Your task to perform on an android device: turn off improve location accuracy Image 0: 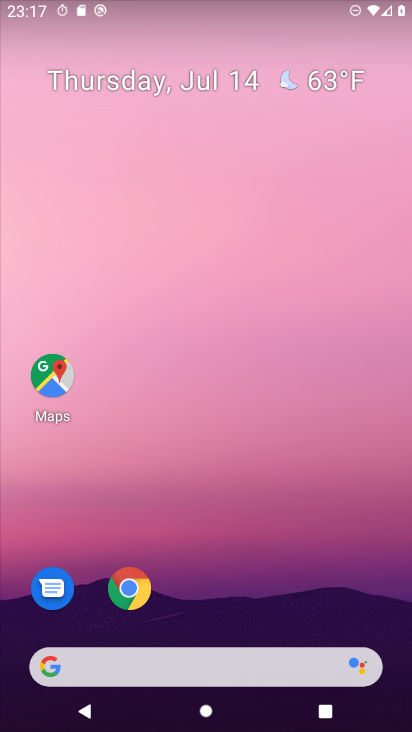
Step 0: drag from (366, 555) to (366, 260)
Your task to perform on an android device: turn off improve location accuracy Image 1: 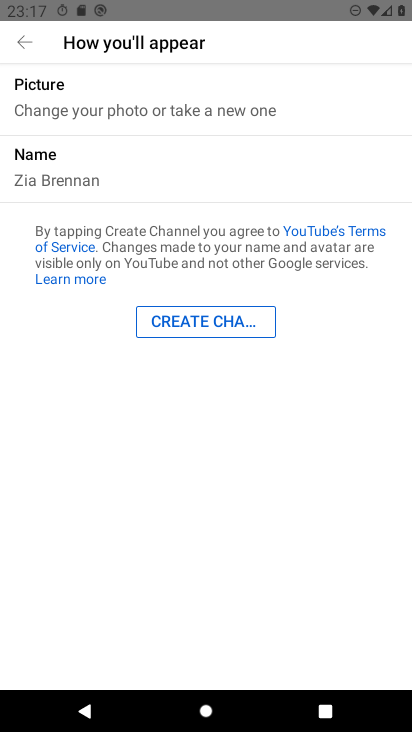
Step 1: press home button
Your task to perform on an android device: turn off improve location accuracy Image 2: 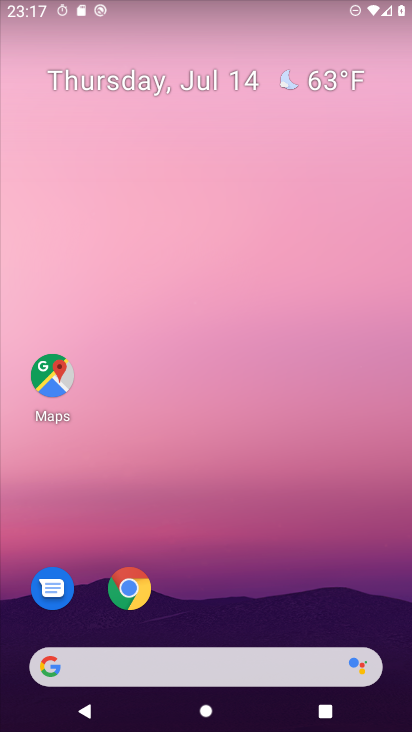
Step 2: drag from (345, 569) to (331, 34)
Your task to perform on an android device: turn off improve location accuracy Image 3: 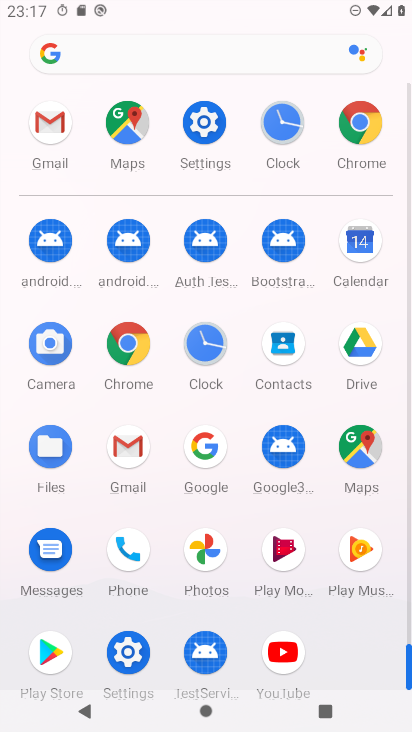
Step 3: click (209, 117)
Your task to perform on an android device: turn off improve location accuracy Image 4: 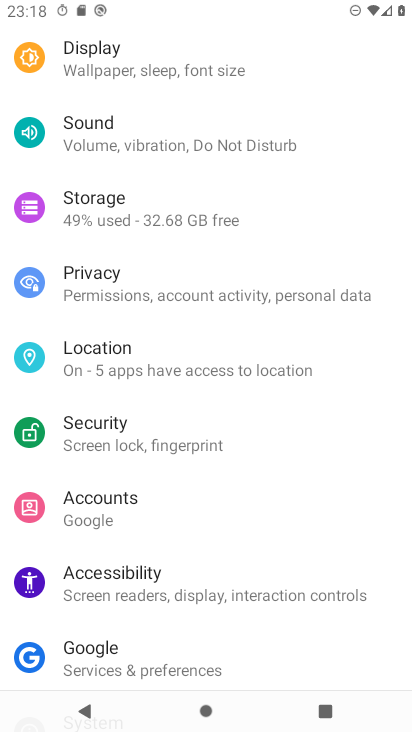
Step 4: drag from (343, 150) to (344, 241)
Your task to perform on an android device: turn off improve location accuracy Image 5: 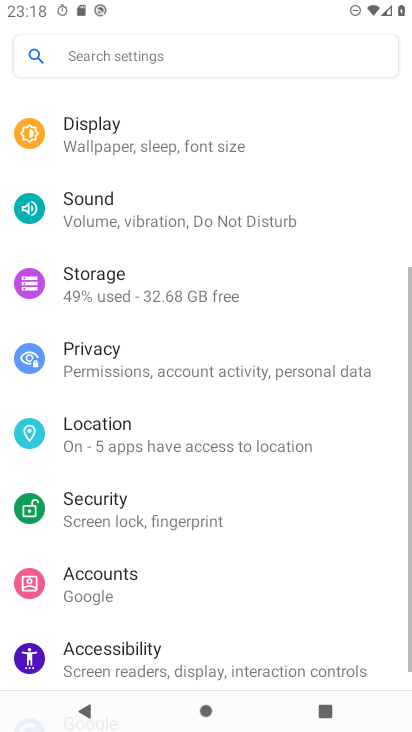
Step 5: drag from (356, 158) to (358, 262)
Your task to perform on an android device: turn off improve location accuracy Image 6: 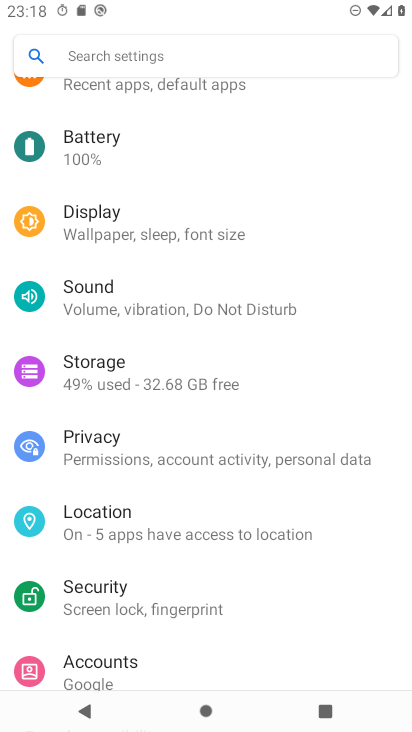
Step 6: drag from (372, 150) to (372, 254)
Your task to perform on an android device: turn off improve location accuracy Image 7: 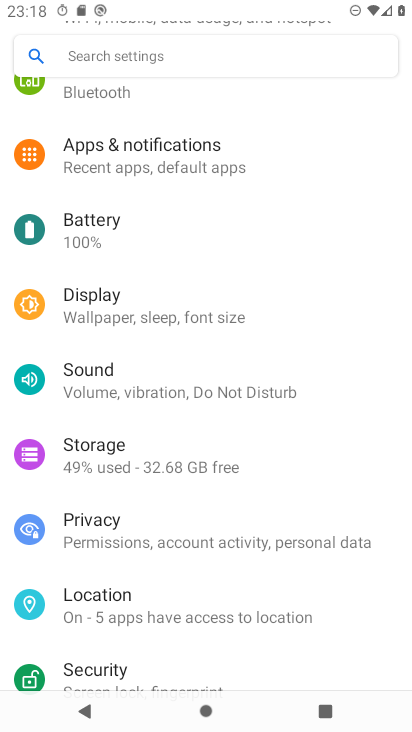
Step 7: drag from (369, 140) to (362, 249)
Your task to perform on an android device: turn off improve location accuracy Image 8: 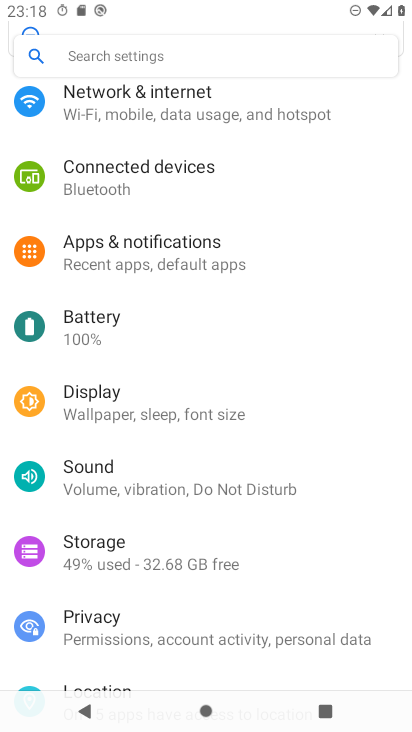
Step 8: drag from (366, 109) to (363, 306)
Your task to perform on an android device: turn off improve location accuracy Image 9: 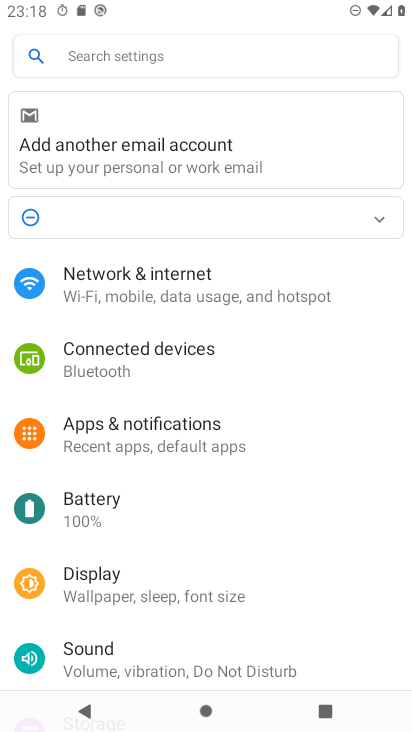
Step 9: drag from (352, 411) to (359, 345)
Your task to perform on an android device: turn off improve location accuracy Image 10: 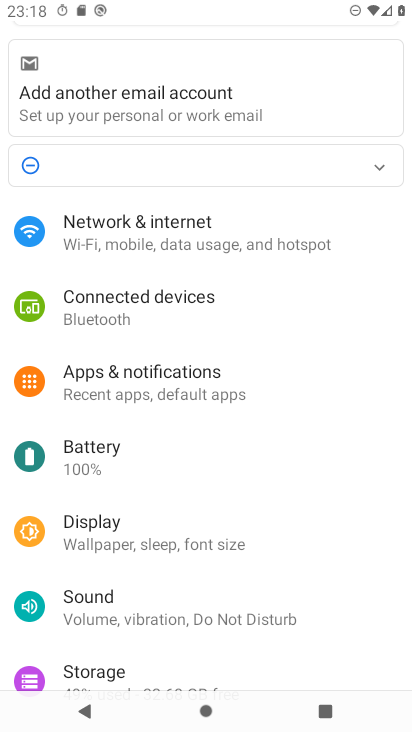
Step 10: drag from (348, 407) to (344, 315)
Your task to perform on an android device: turn off improve location accuracy Image 11: 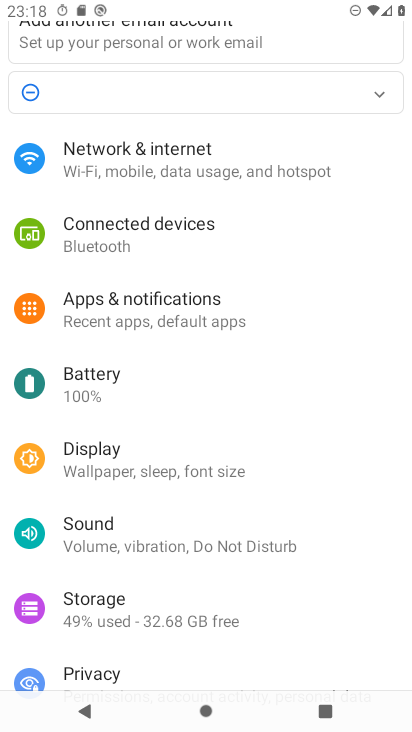
Step 11: drag from (320, 411) to (321, 325)
Your task to perform on an android device: turn off improve location accuracy Image 12: 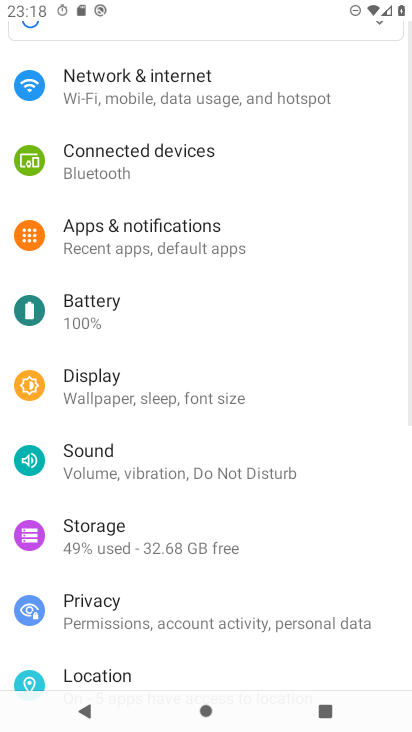
Step 12: drag from (312, 406) to (311, 342)
Your task to perform on an android device: turn off improve location accuracy Image 13: 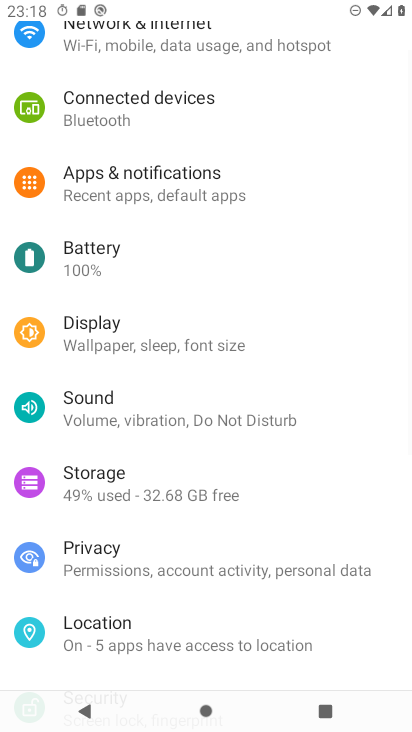
Step 13: drag from (310, 421) to (310, 361)
Your task to perform on an android device: turn off improve location accuracy Image 14: 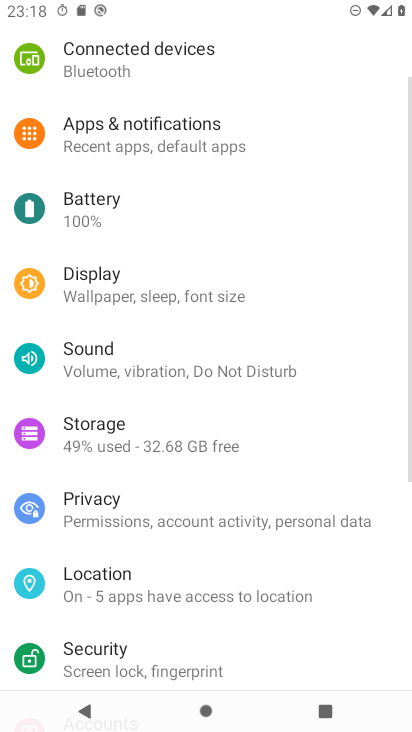
Step 14: drag from (294, 433) to (298, 369)
Your task to perform on an android device: turn off improve location accuracy Image 15: 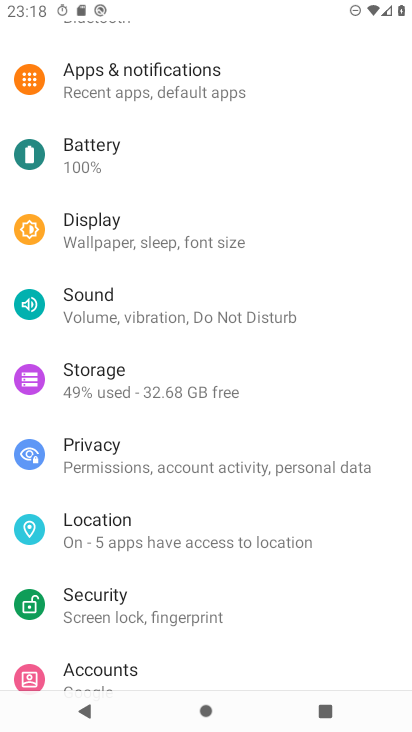
Step 15: drag from (289, 435) to (292, 357)
Your task to perform on an android device: turn off improve location accuracy Image 16: 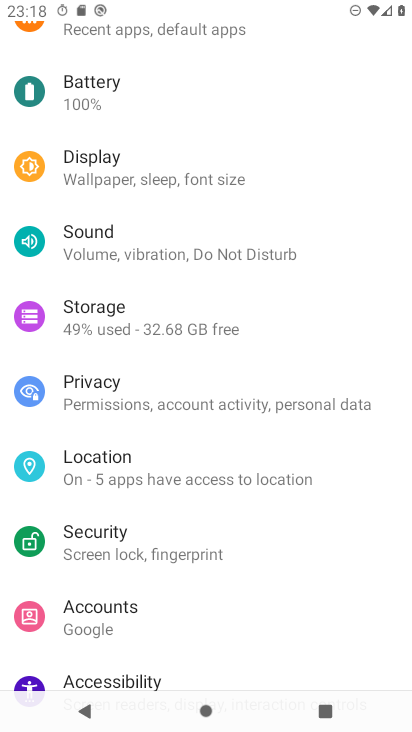
Step 16: drag from (291, 446) to (294, 327)
Your task to perform on an android device: turn off improve location accuracy Image 17: 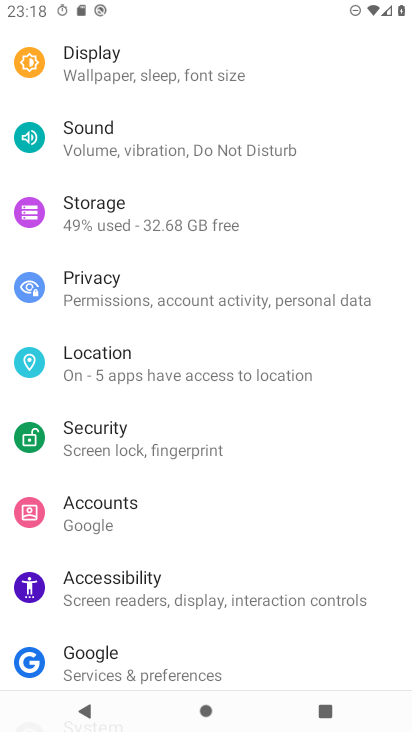
Step 17: click (280, 355)
Your task to perform on an android device: turn off improve location accuracy Image 18: 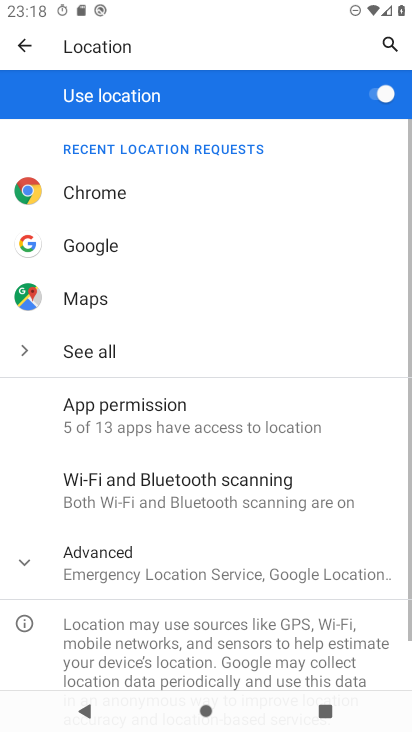
Step 18: click (287, 562)
Your task to perform on an android device: turn off improve location accuracy Image 19: 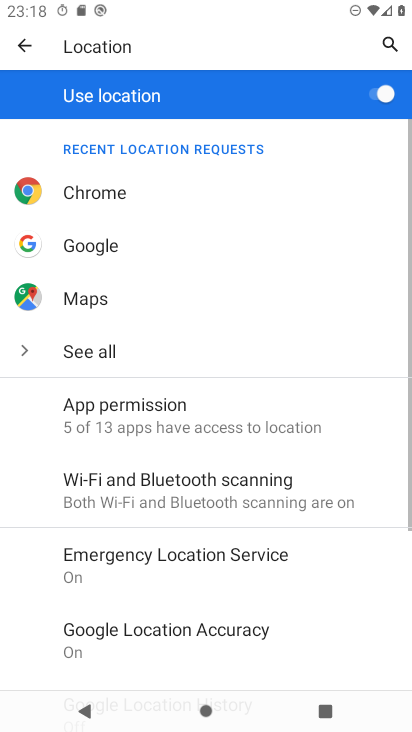
Step 19: drag from (320, 537) to (327, 385)
Your task to perform on an android device: turn off improve location accuracy Image 20: 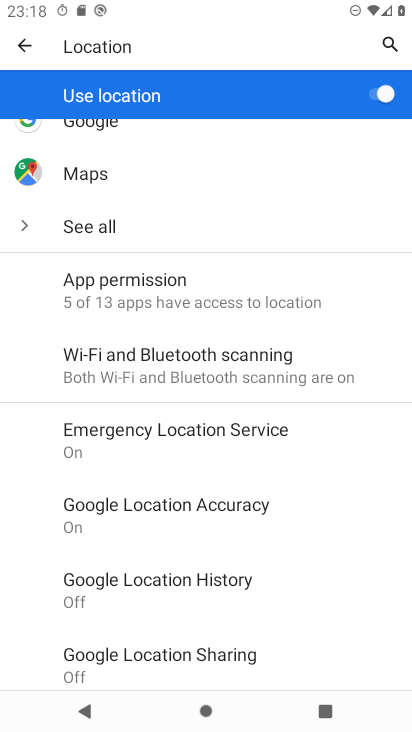
Step 20: drag from (329, 516) to (340, 386)
Your task to perform on an android device: turn off improve location accuracy Image 21: 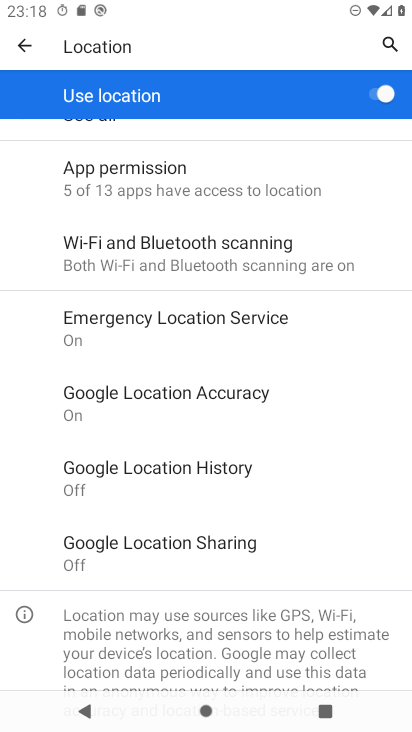
Step 21: click (246, 394)
Your task to perform on an android device: turn off improve location accuracy Image 22: 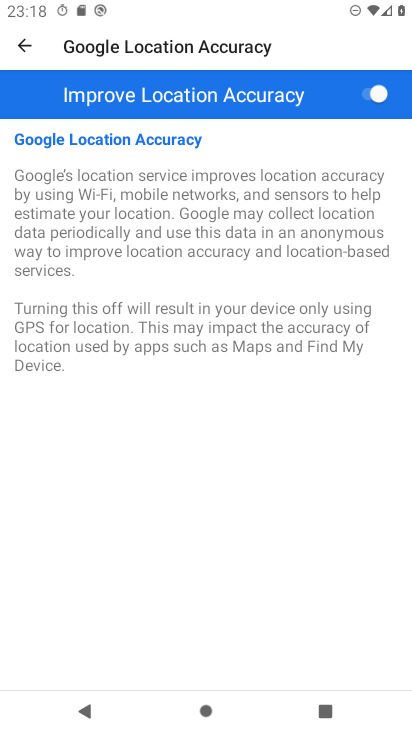
Step 22: click (365, 95)
Your task to perform on an android device: turn off improve location accuracy Image 23: 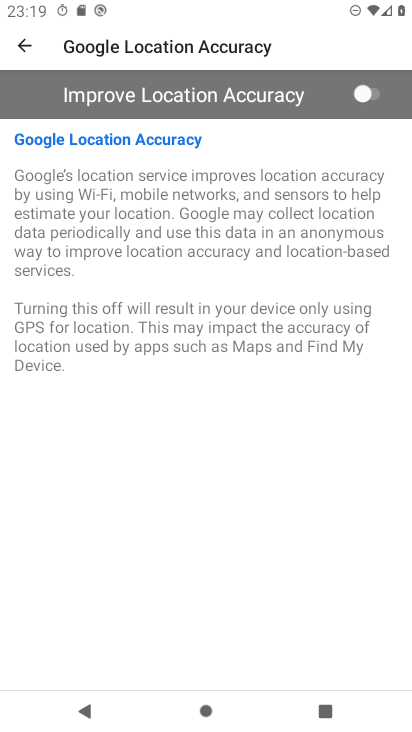
Step 23: task complete